Your task to perform on an android device: see creations saved in the google photos Image 0: 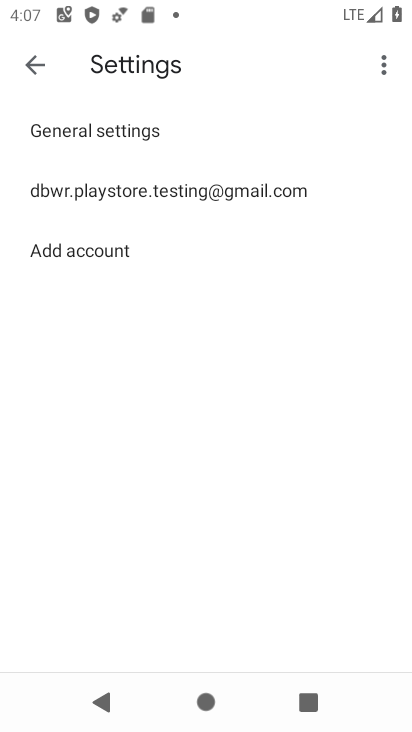
Step 0: press home button
Your task to perform on an android device: see creations saved in the google photos Image 1: 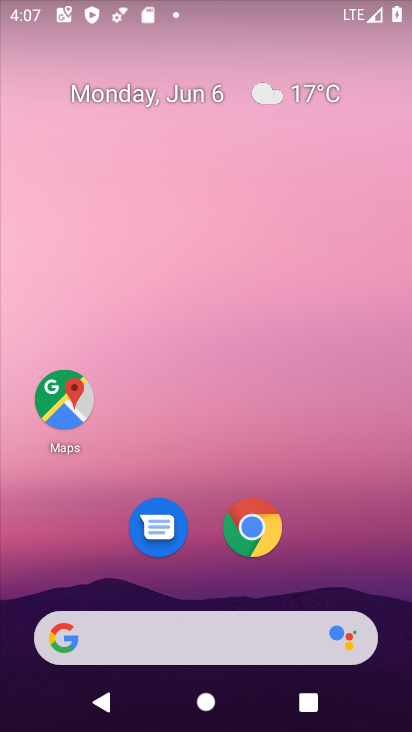
Step 1: drag from (362, 586) to (409, 271)
Your task to perform on an android device: see creations saved in the google photos Image 2: 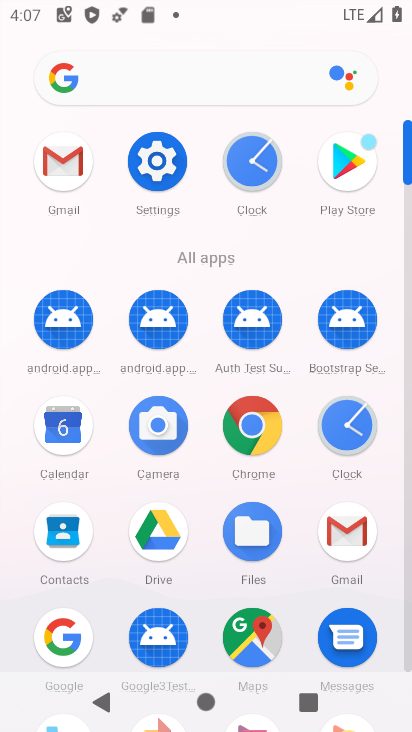
Step 2: click (400, 327)
Your task to perform on an android device: see creations saved in the google photos Image 3: 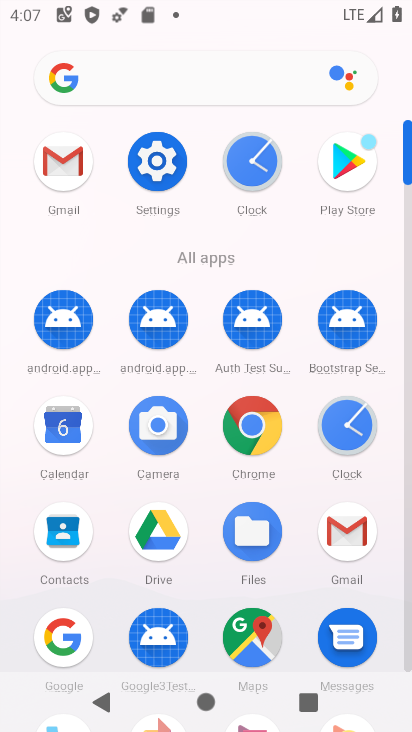
Step 3: click (405, 311)
Your task to perform on an android device: see creations saved in the google photos Image 4: 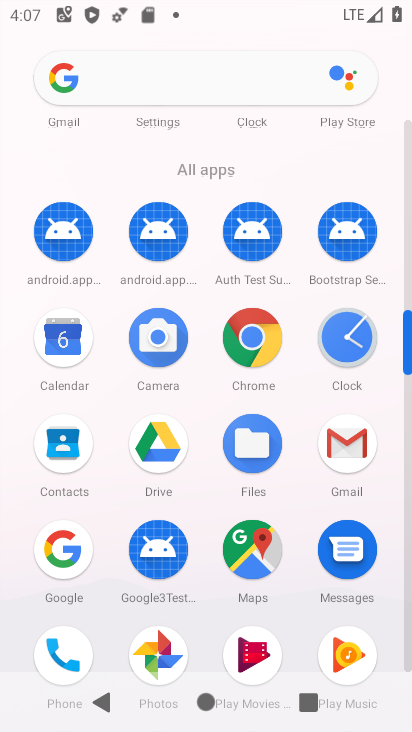
Step 4: click (407, 423)
Your task to perform on an android device: see creations saved in the google photos Image 5: 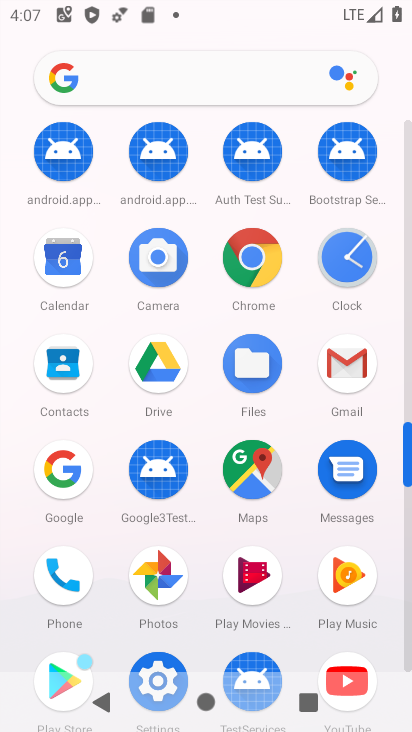
Step 5: click (154, 579)
Your task to perform on an android device: see creations saved in the google photos Image 6: 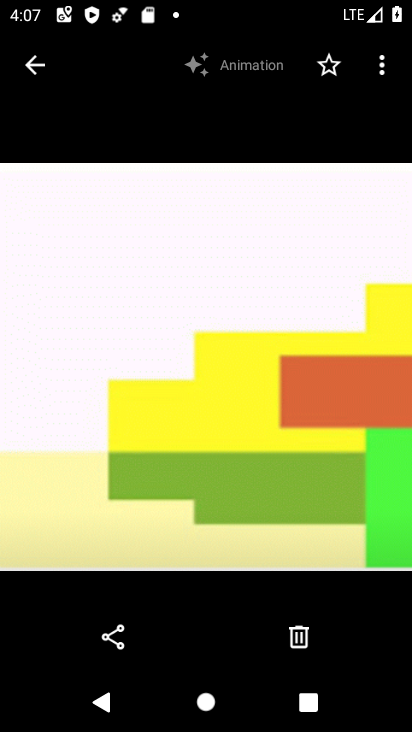
Step 6: click (32, 77)
Your task to perform on an android device: see creations saved in the google photos Image 7: 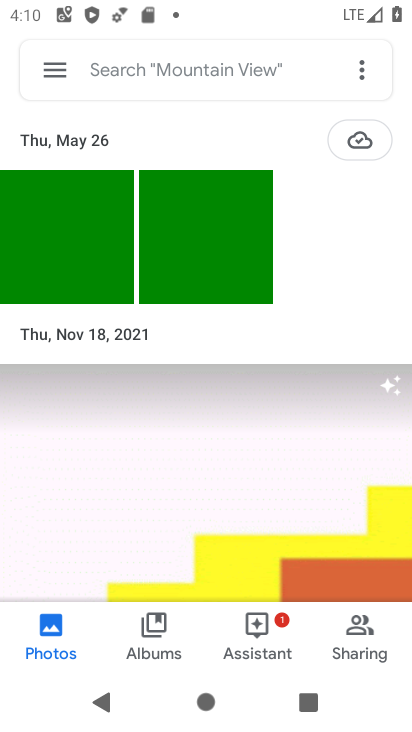
Step 7: task complete